Your task to perform on an android device: turn on showing notifications on the lock screen Image 0: 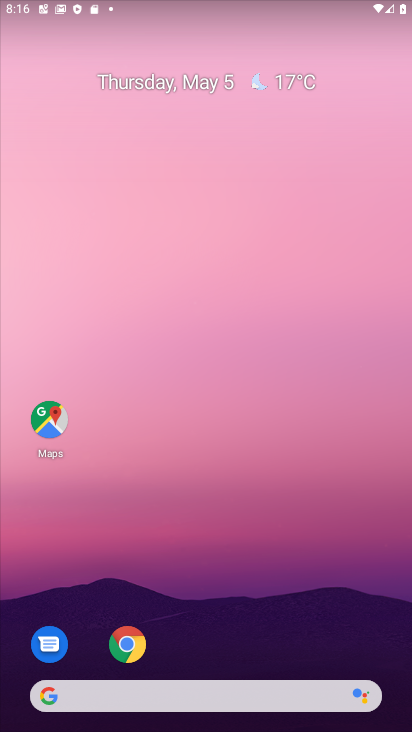
Step 0: drag from (257, 520) to (195, 183)
Your task to perform on an android device: turn on showing notifications on the lock screen Image 1: 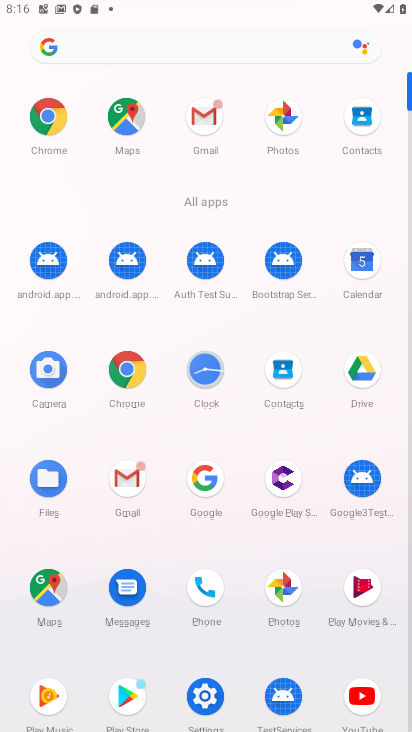
Step 1: click (207, 693)
Your task to perform on an android device: turn on showing notifications on the lock screen Image 2: 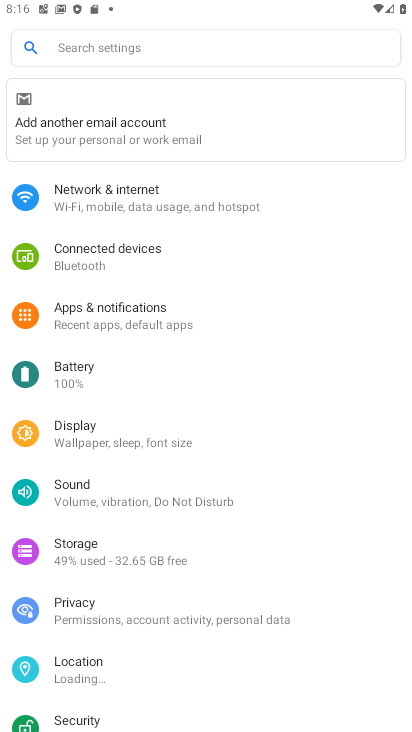
Step 2: click (157, 312)
Your task to perform on an android device: turn on showing notifications on the lock screen Image 3: 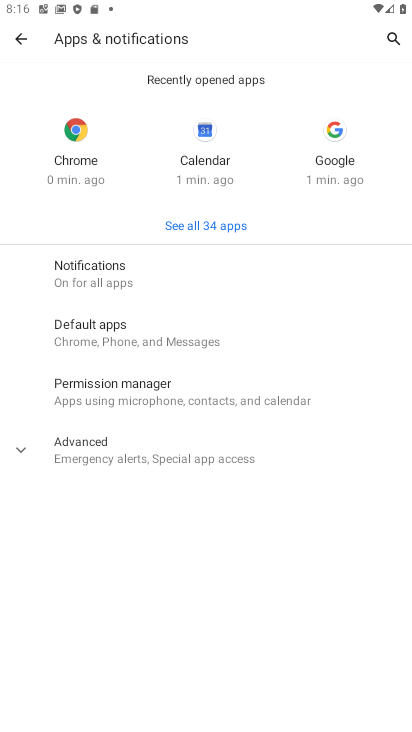
Step 3: click (143, 281)
Your task to perform on an android device: turn on showing notifications on the lock screen Image 4: 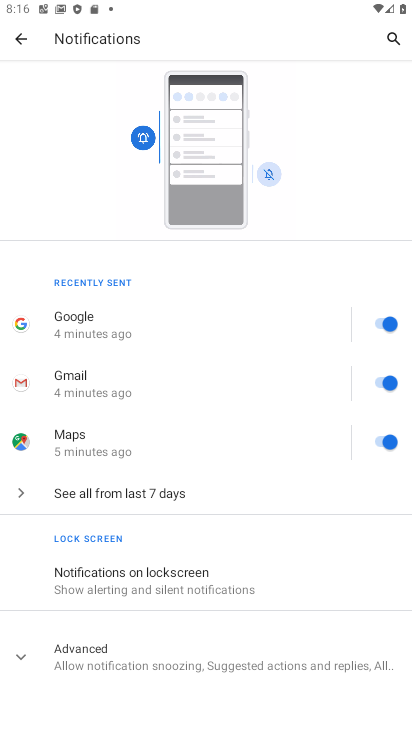
Step 4: click (269, 586)
Your task to perform on an android device: turn on showing notifications on the lock screen Image 5: 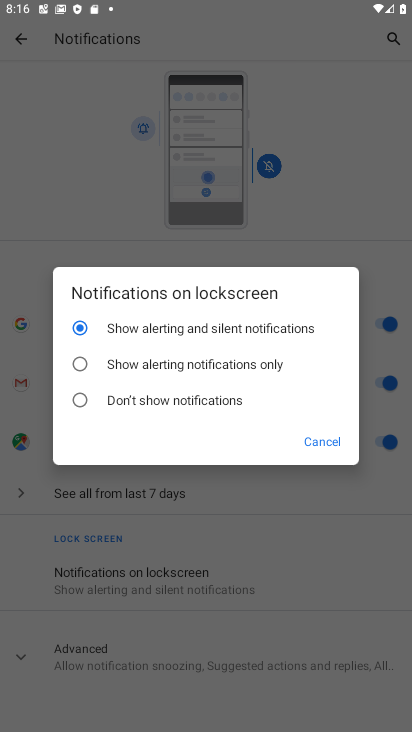
Step 5: task complete